Your task to perform on an android device: Add "logitech g pro" to the cart on target.com Image 0: 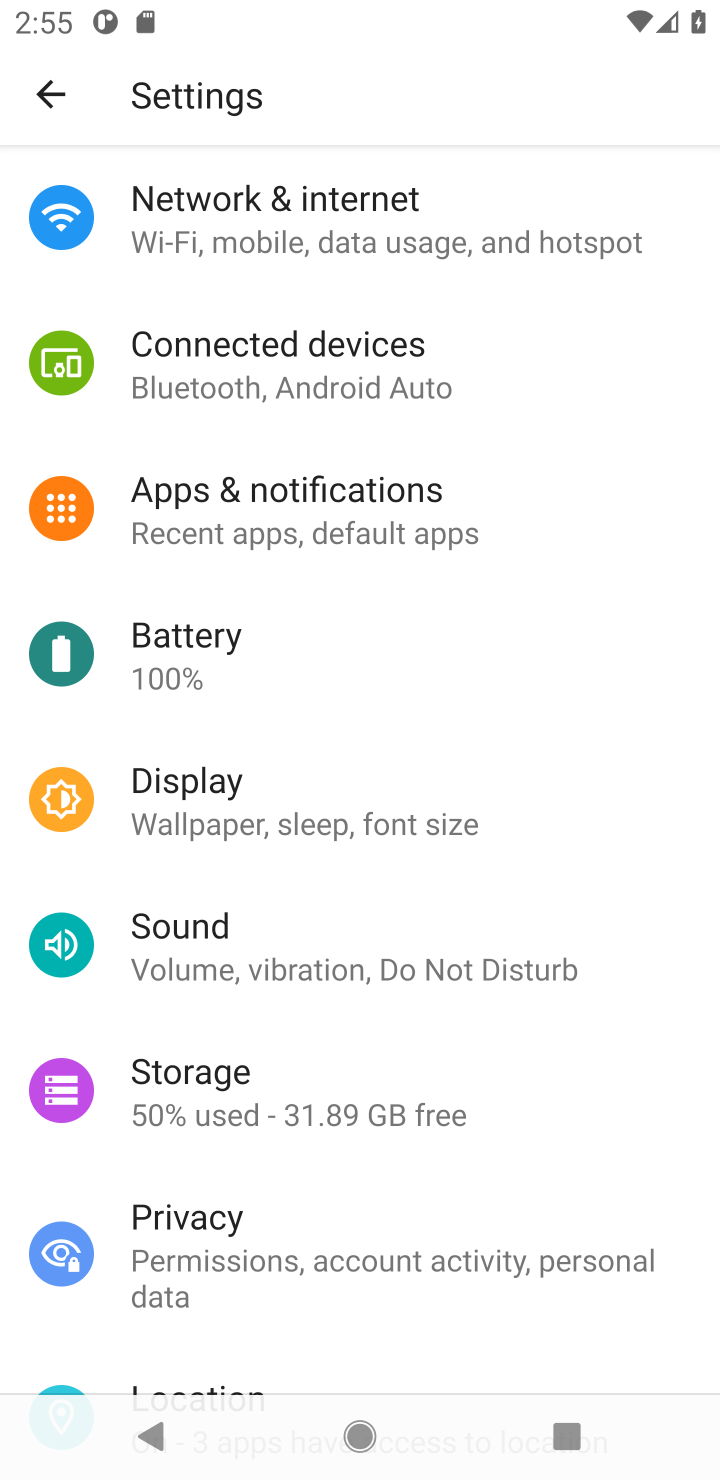
Step 0: press home button
Your task to perform on an android device: Add "logitech g pro" to the cart on target.com Image 1: 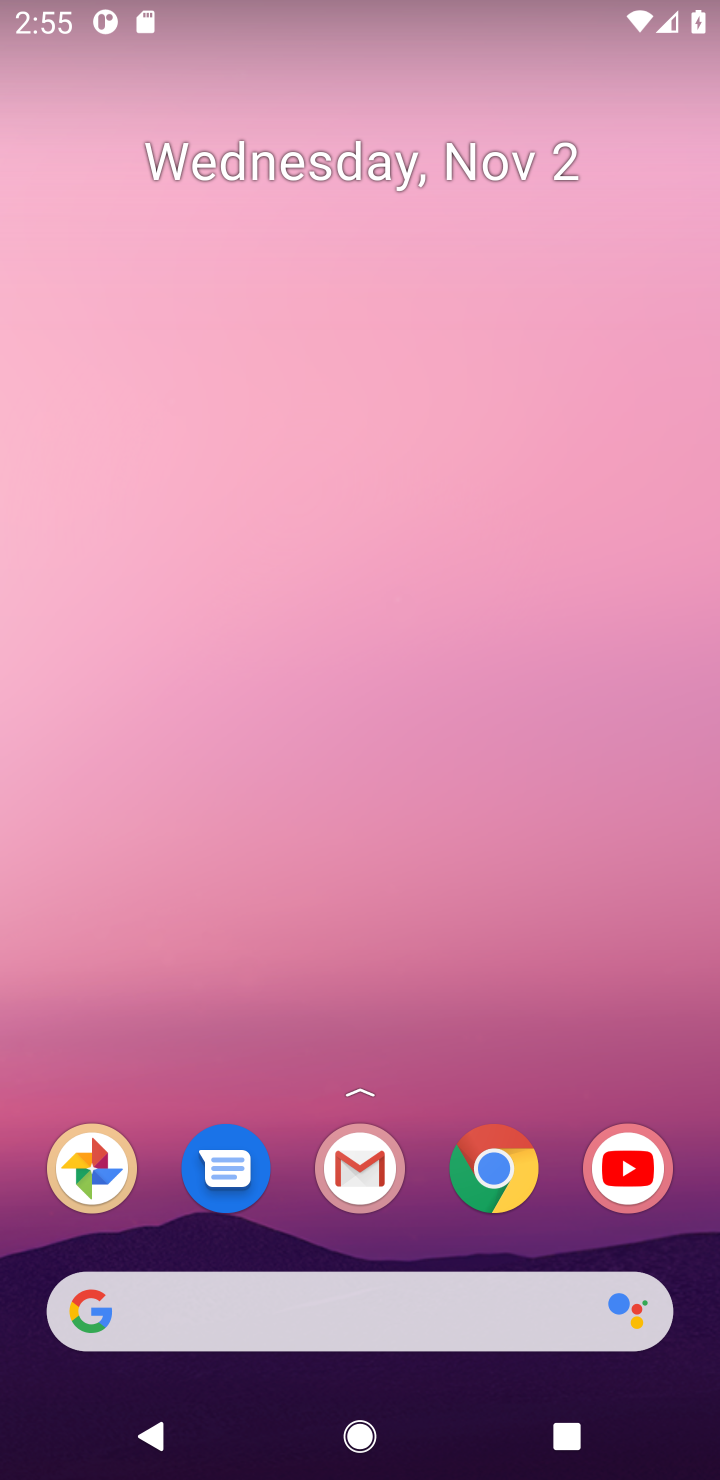
Step 1: drag from (336, 1231) to (438, 580)
Your task to perform on an android device: Add "logitech g pro" to the cart on target.com Image 2: 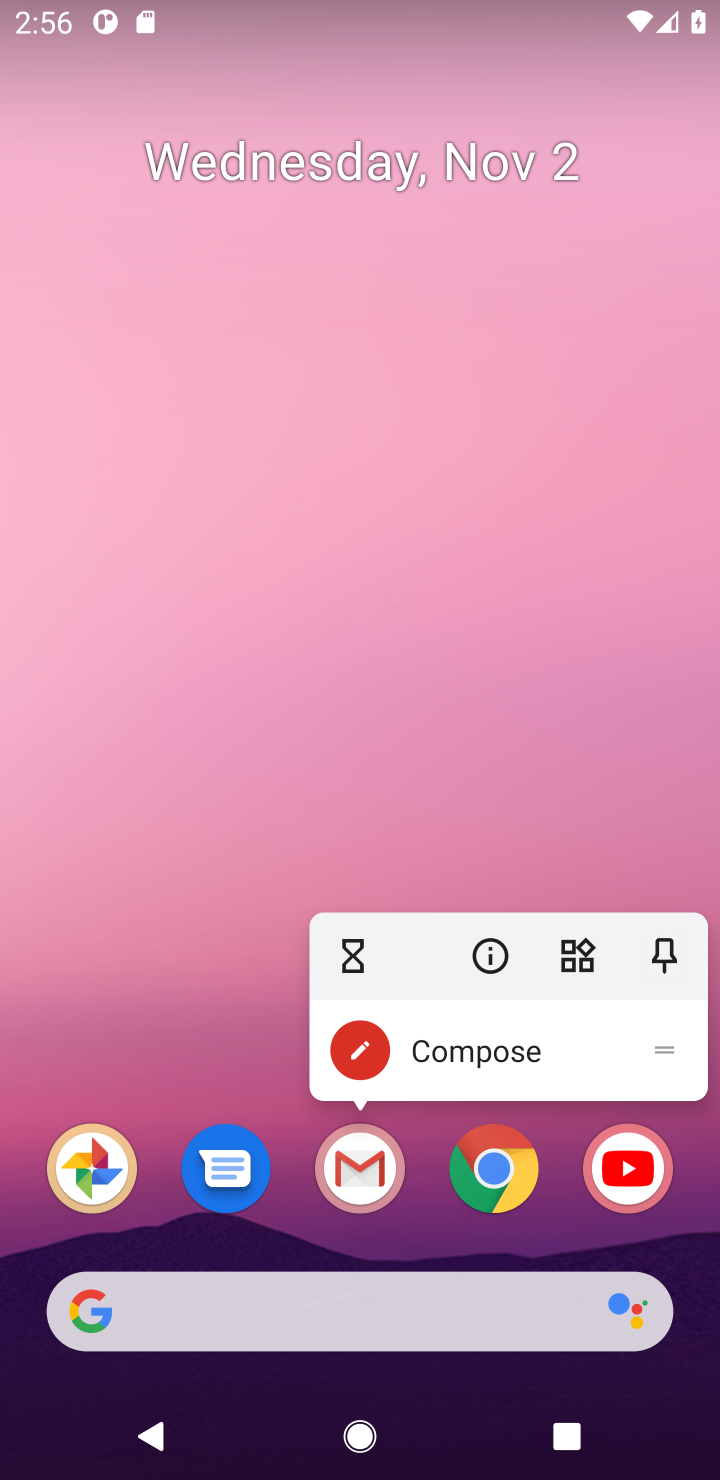
Step 2: click (362, 1326)
Your task to perform on an android device: Add "logitech g pro" to the cart on target.com Image 3: 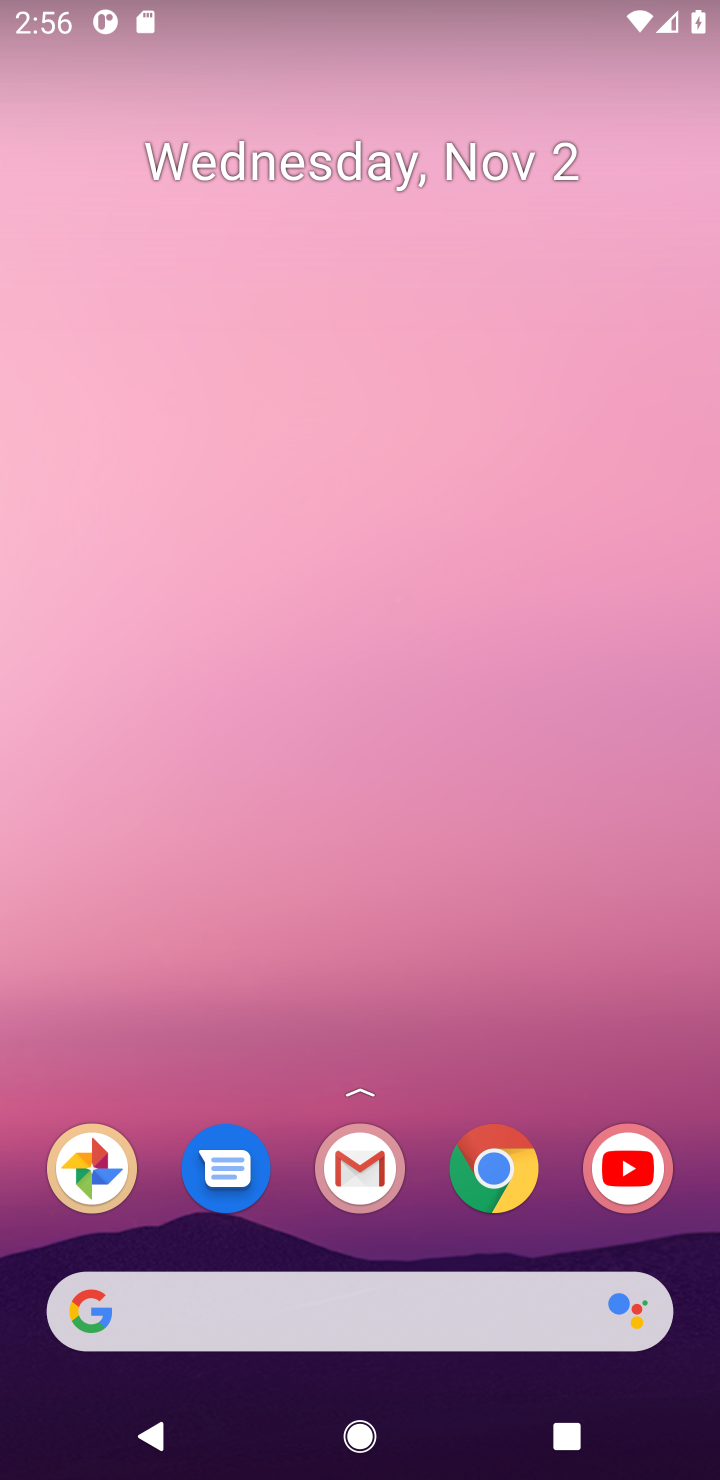
Step 3: click (359, 1318)
Your task to perform on an android device: Add "logitech g pro" to the cart on target.com Image 4: 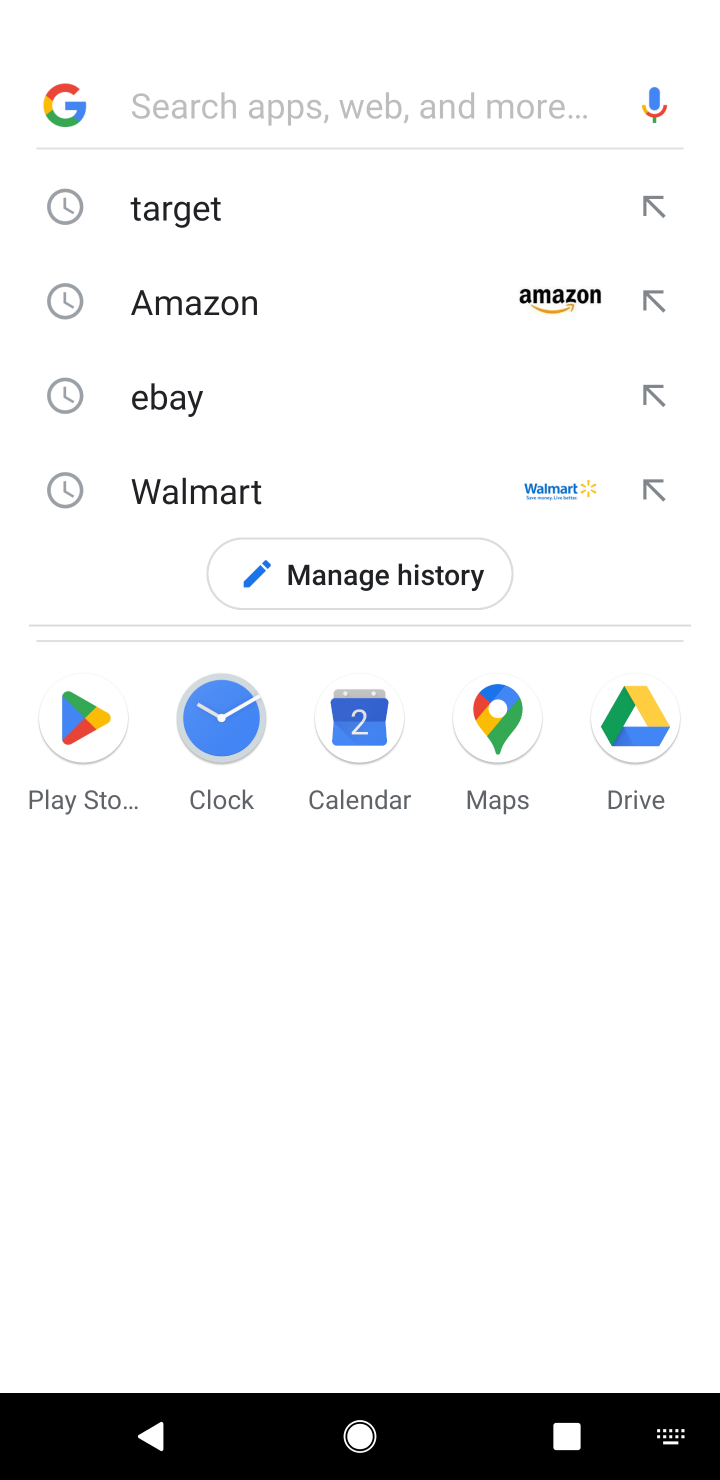
Step 4: type "target.com"
Your task to perform on an android device: Add "logitech g pro" to the cart on target.com Image 5: 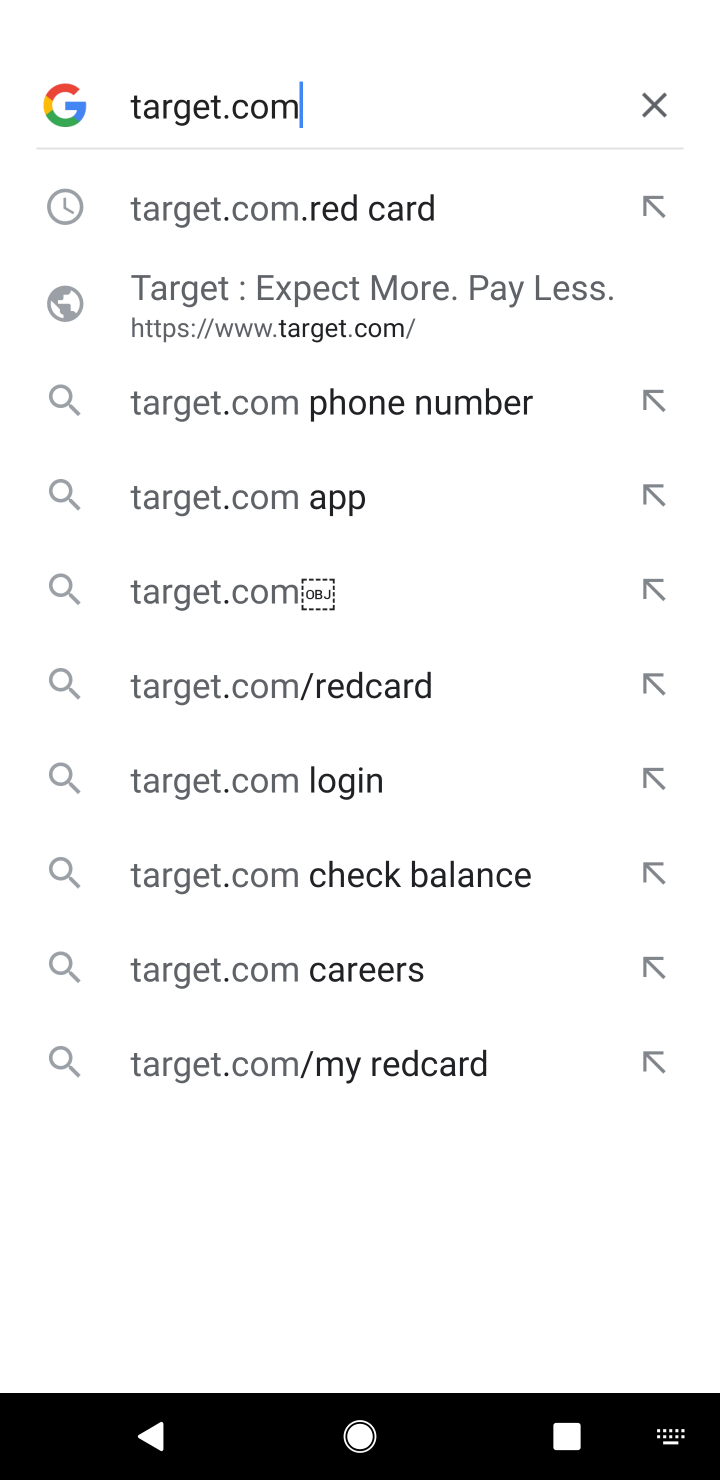
Step 5: click (224, 586)
Your task to perform on an android device: Add "logitech g pro" to the cart on target.com Image 6: 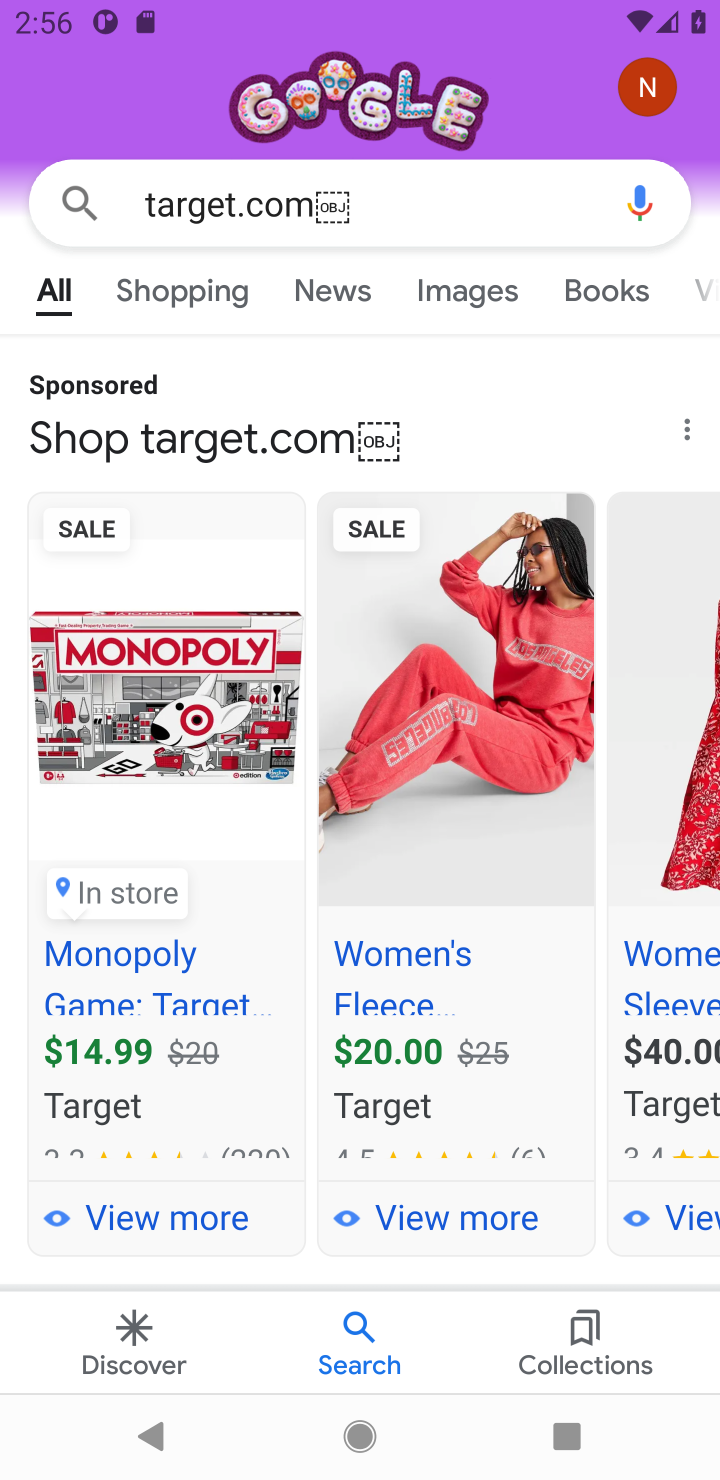
Step 6: drag from (234, 1144) to (305, 737)
Your task to perform on an android device: Add "logitech g pro" to the cart on target.com Image 7: 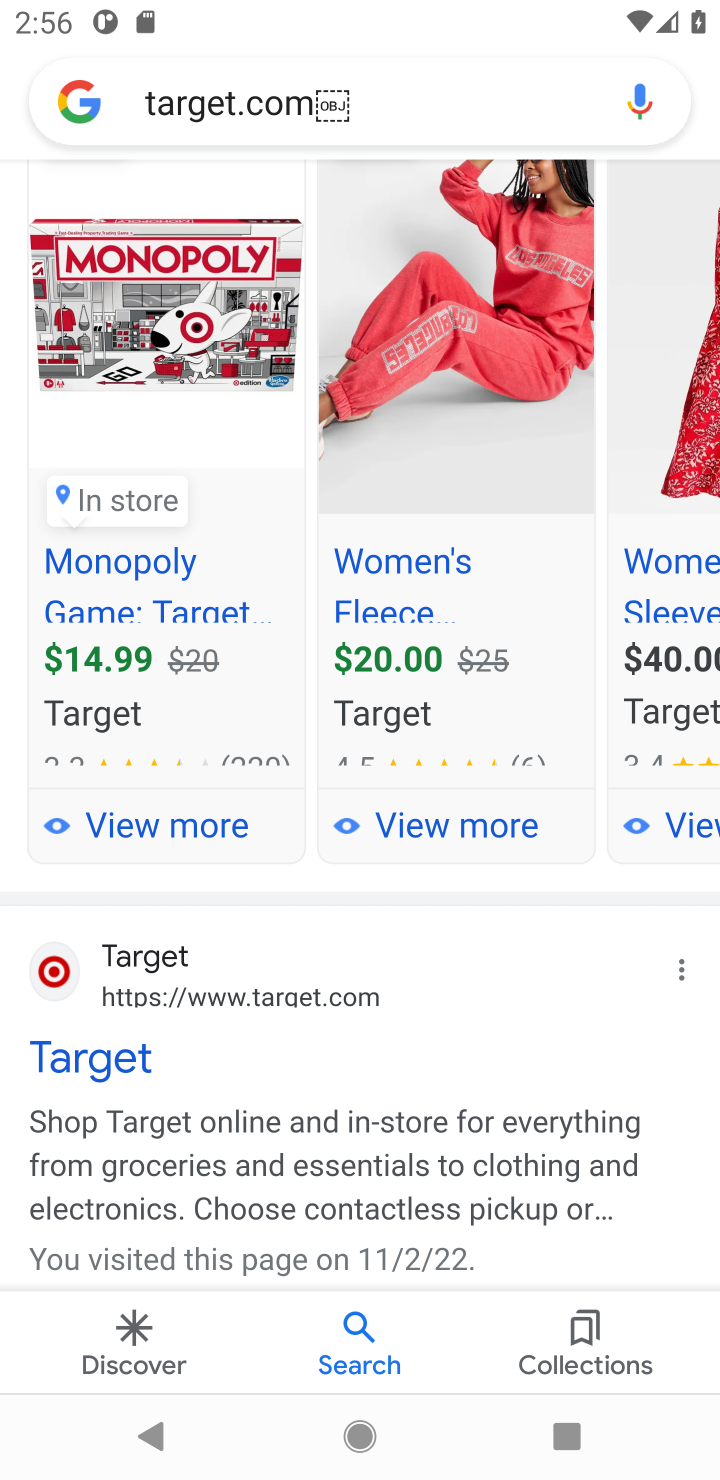
Step 7: click (107, 1054)
Your task to perform on an android device: Add "logitech g pro" to the cart on target.com Image 8: 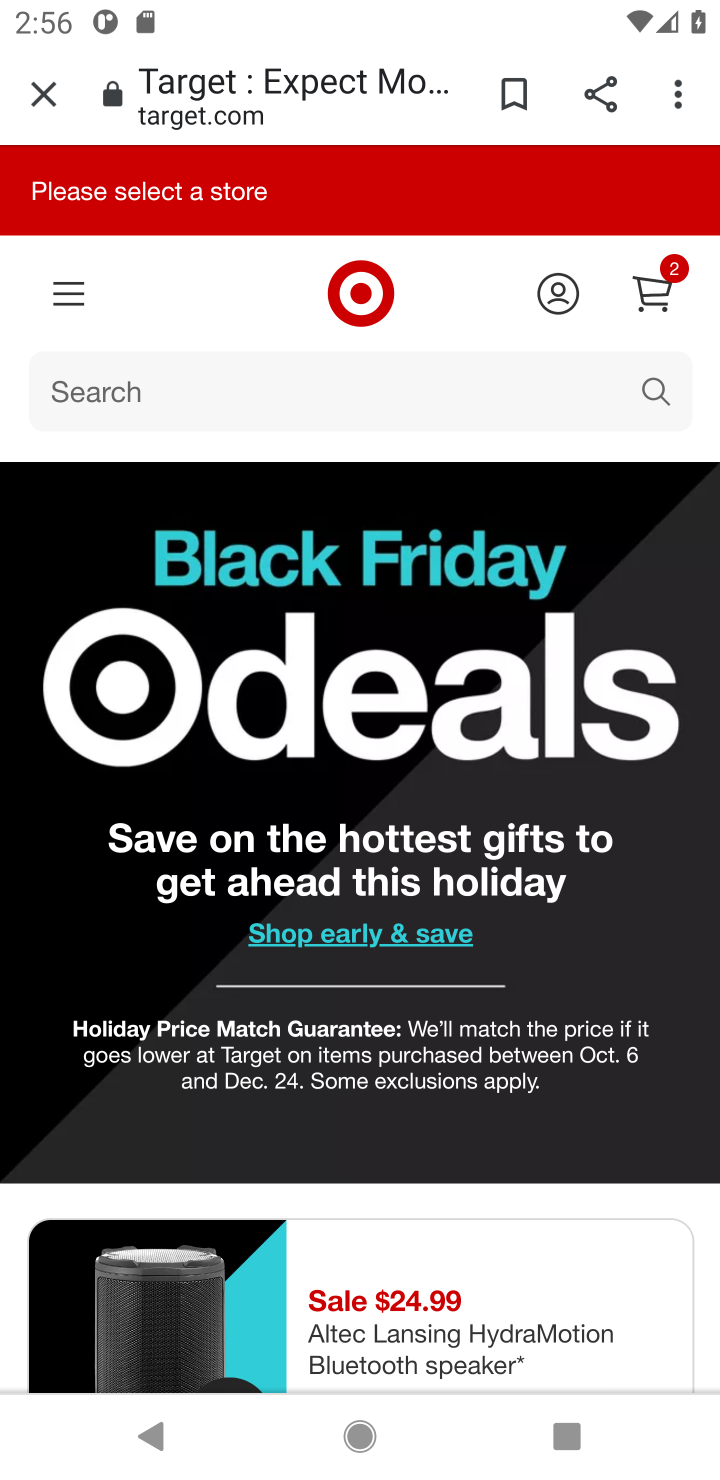
Step 8: click (455, 378)
Your task to perform on an android device: Add "logitech g pro" to the cart on target.com Image 9: 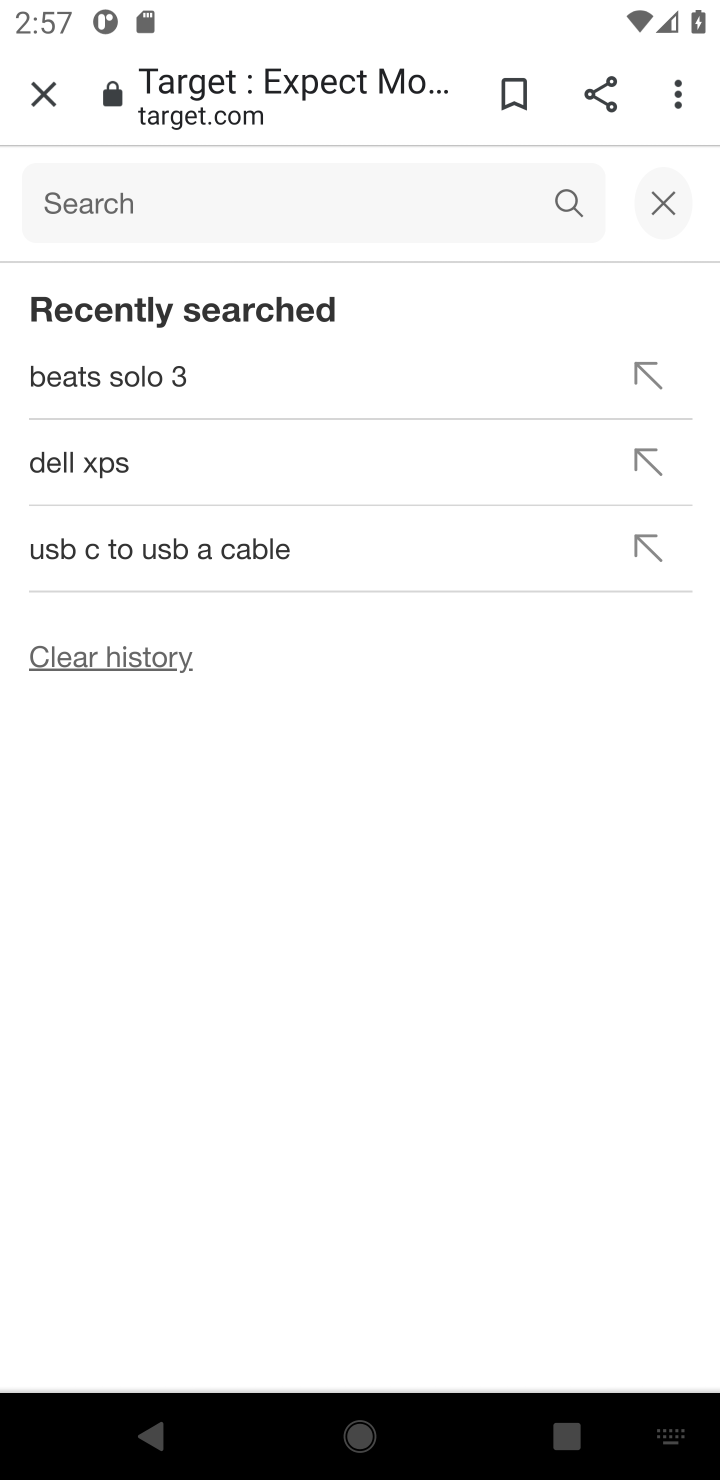
Step 9: type "logitech g pro"
Your task to perform on an android device: Add "logitech g pro" to the cart on target.com Image 10: 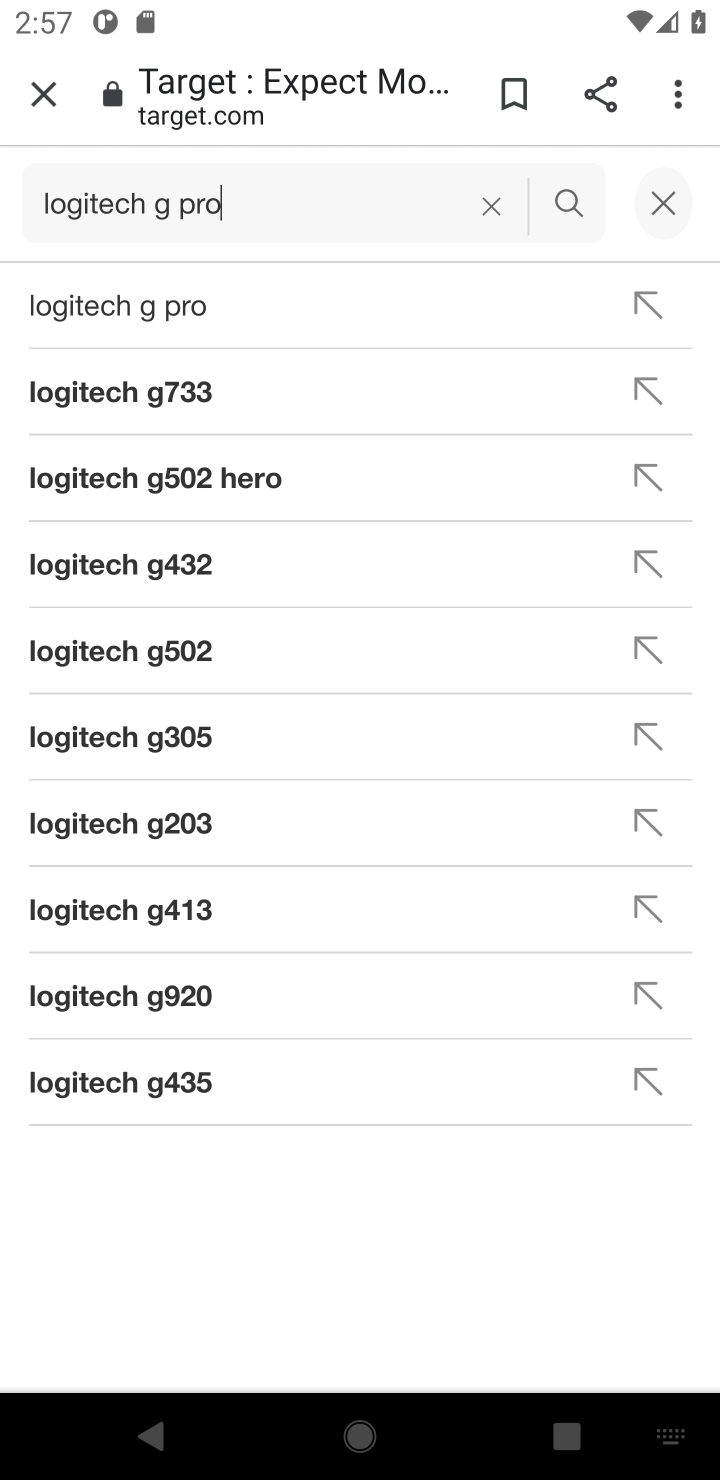
Step 10: click (175, 310)
Your task to perform on an android device: Add "logitech g pro" to the cart on target.com Image 11: 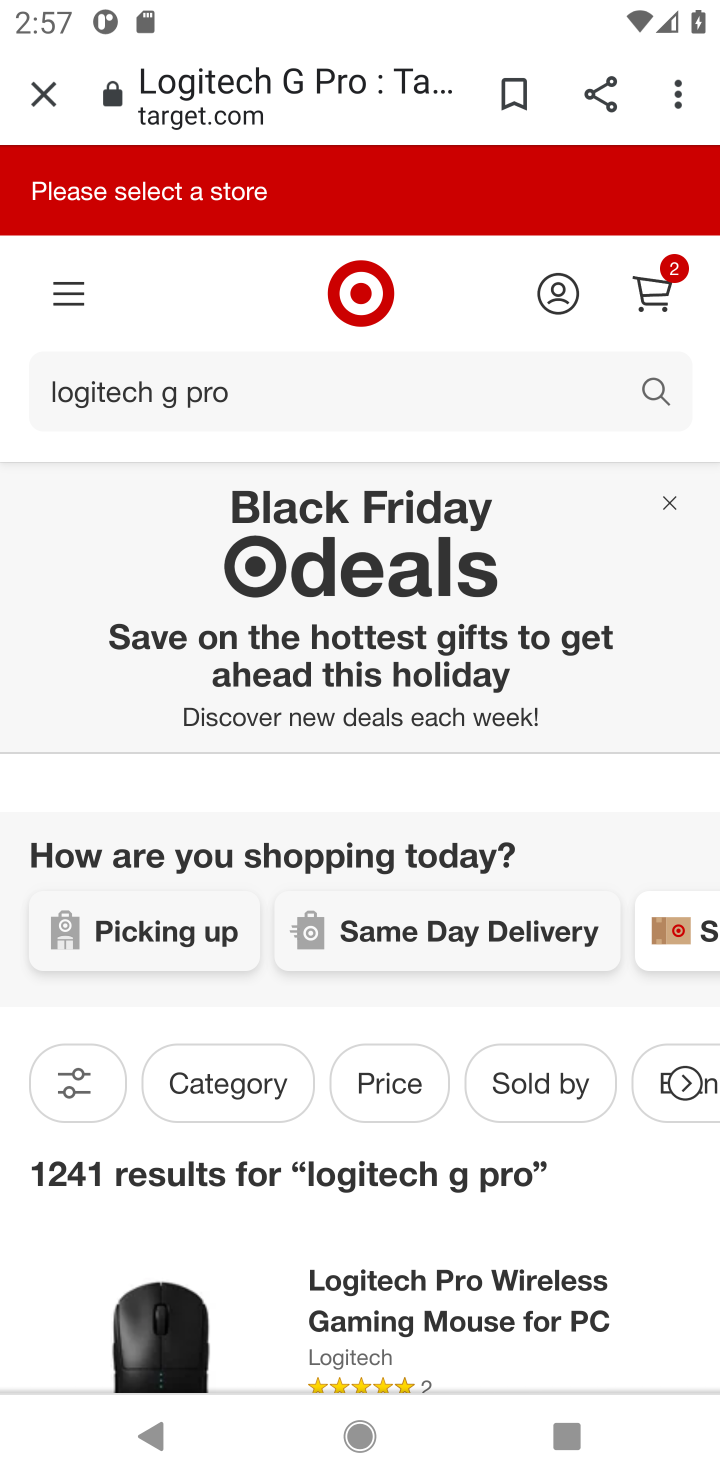
Step 11: click (424, 1319)
Your task to perform on an android device: Add "logitech g pro" to the cart on target.com Image 12: 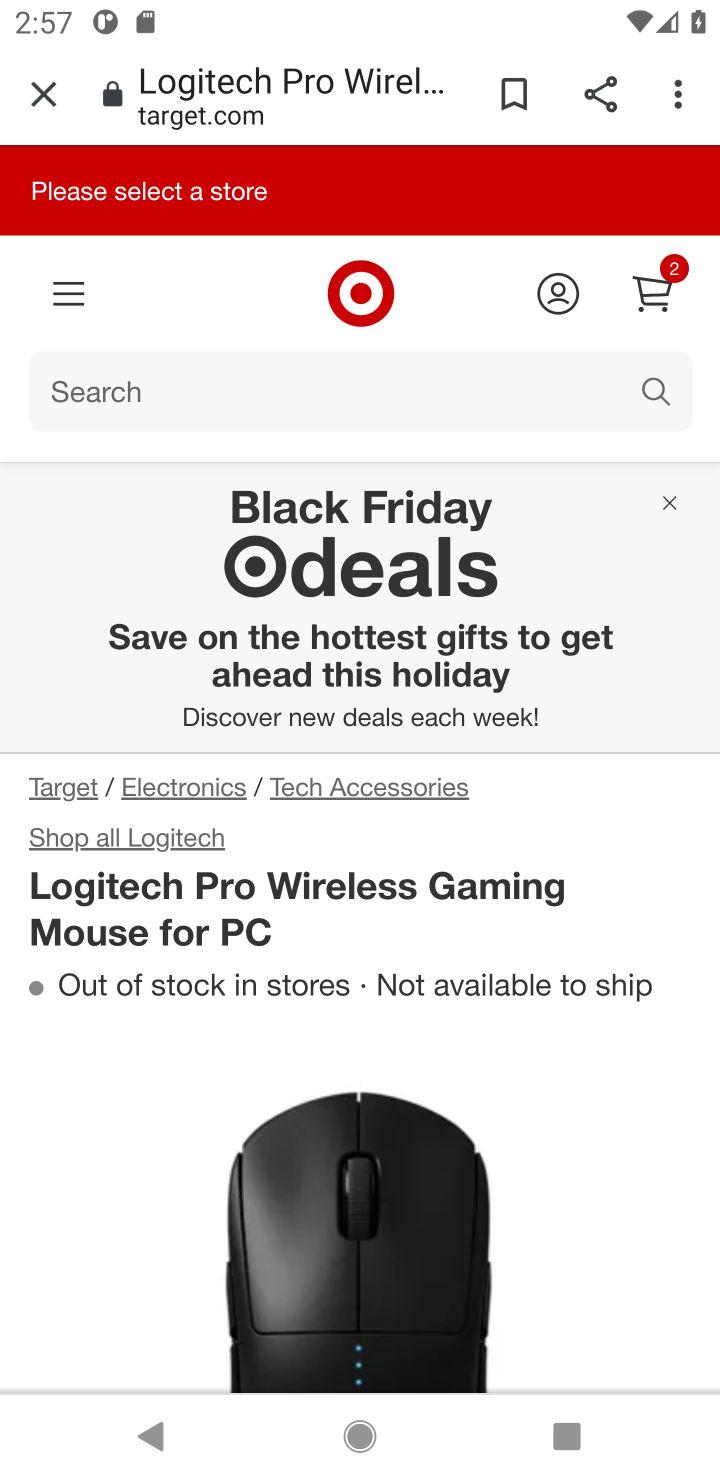
Step 12: drag from (454, 1281) to (435, 310)
Your task to perform on an android device: Add "logitech g pro" to the cart on target.com Image 13: 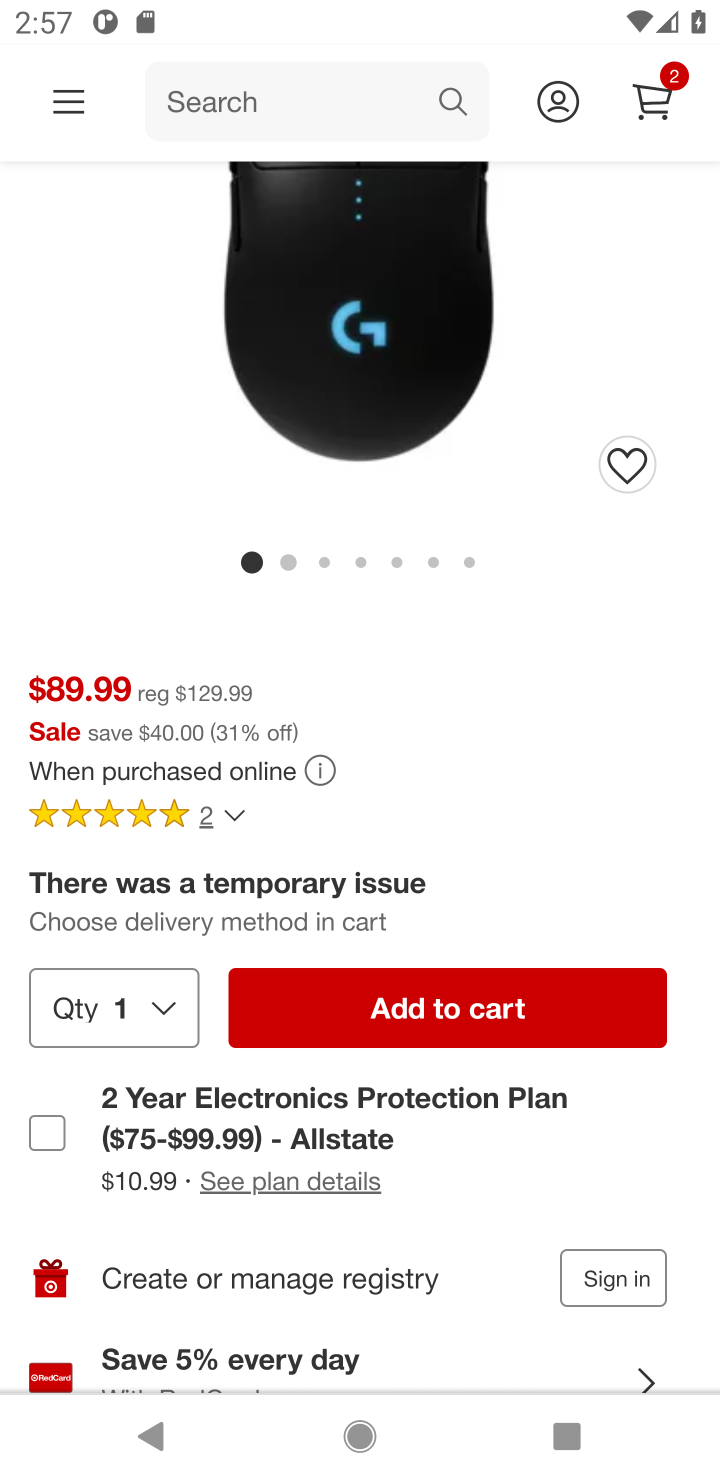
Step 13: click (448, 1011)
Your task to perform on an android device: Add "logitech g pro" to the cart on target.com Image 14: 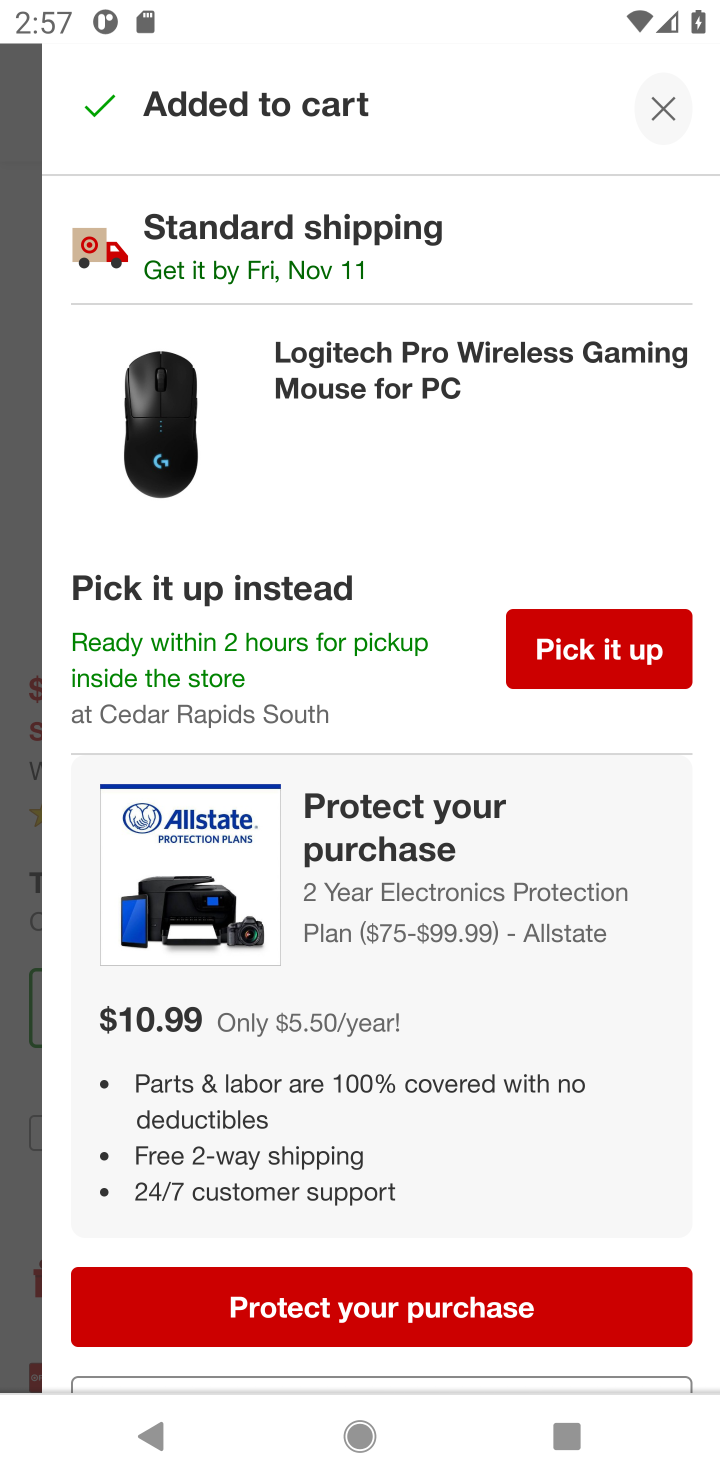
Step 14: click (657, 117)
Your task to perform on an android device: Add "logitech g pro" to the cart on target.com Image 15: 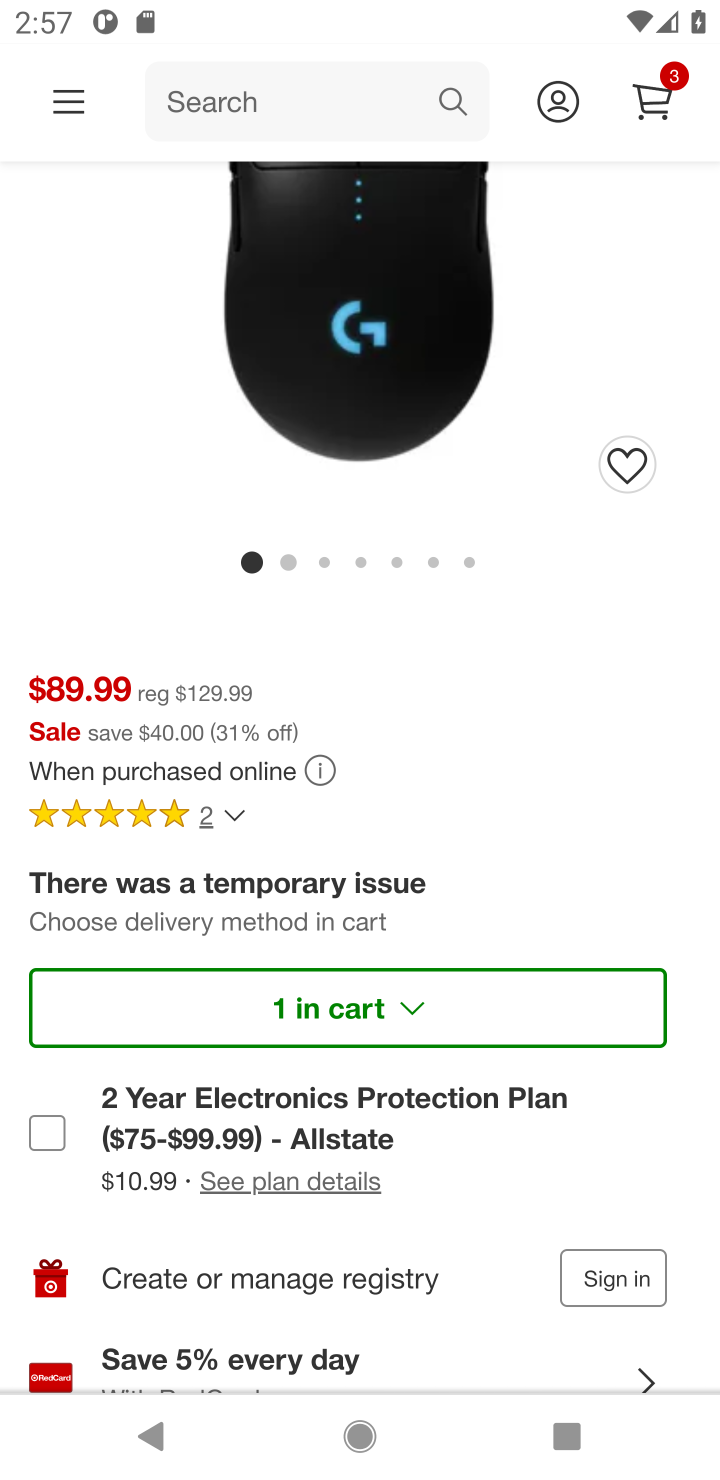
Step 15: task complete